Your task to perform on an android device: install app "Nova Launcher" Image 0: 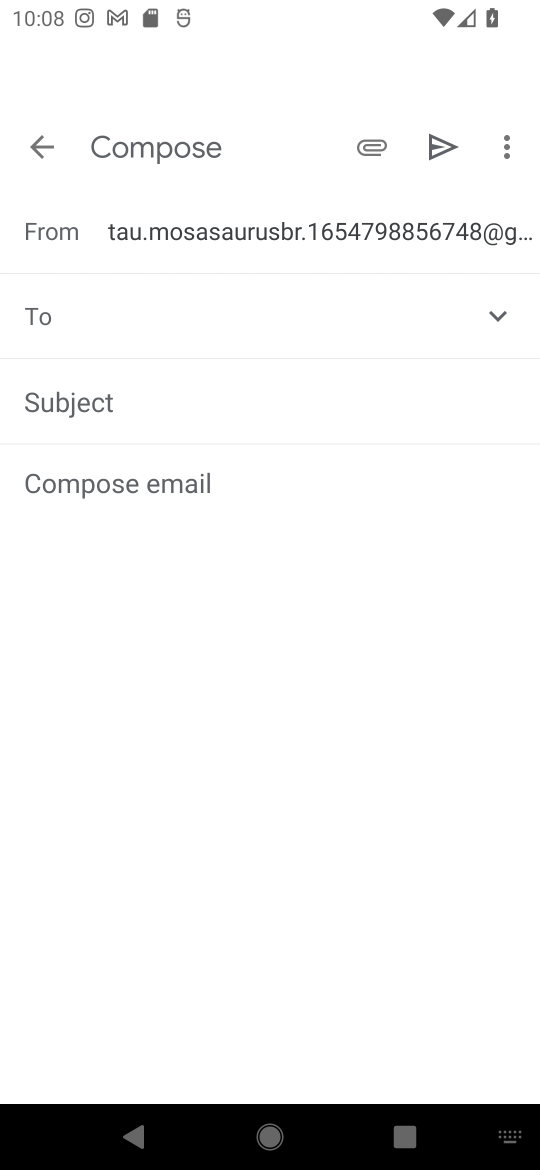
Step 0: press home button
Your task to perform on an android device: install app "Nova Launcher" Image 1: 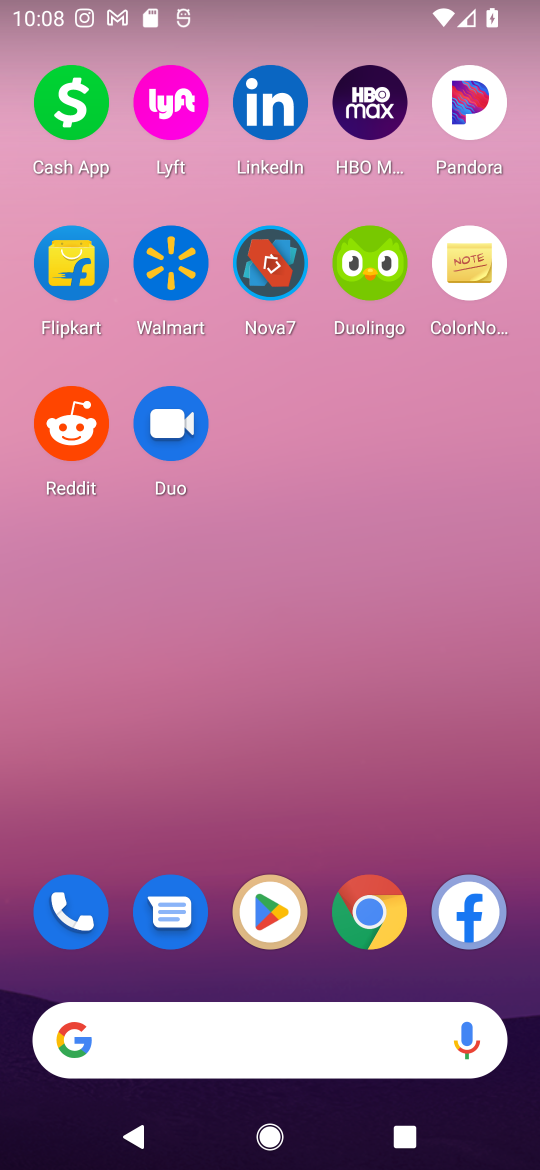
Step 1: click (270, 918)
Your task to perform on an android device: install app "Nova Launcher" Image 2: 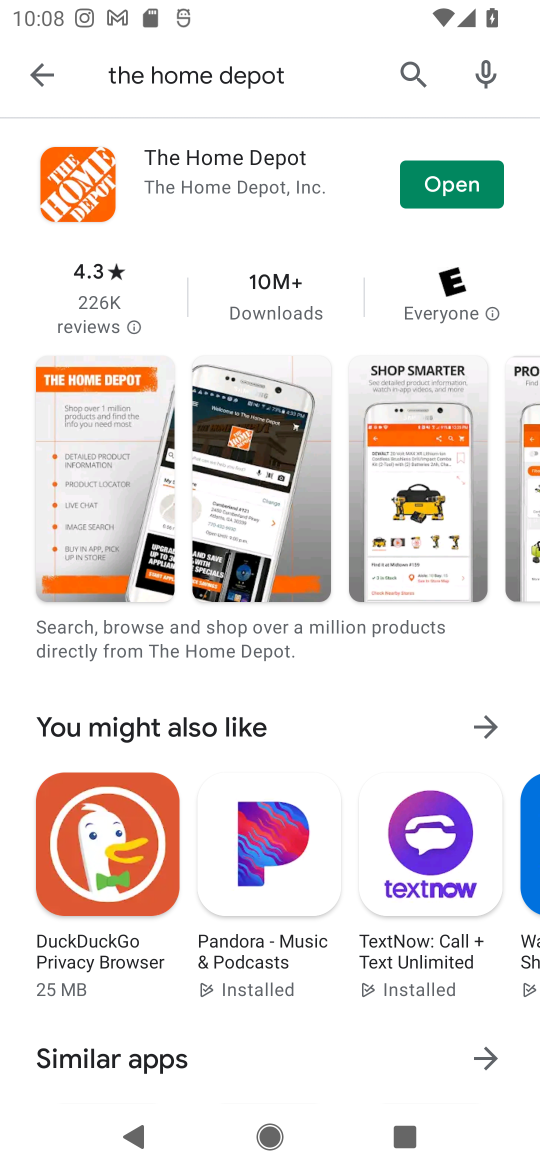
Step 2: click (411, 61)
Your task to perform on an android device: install app "Nova Launcher" Image 3: 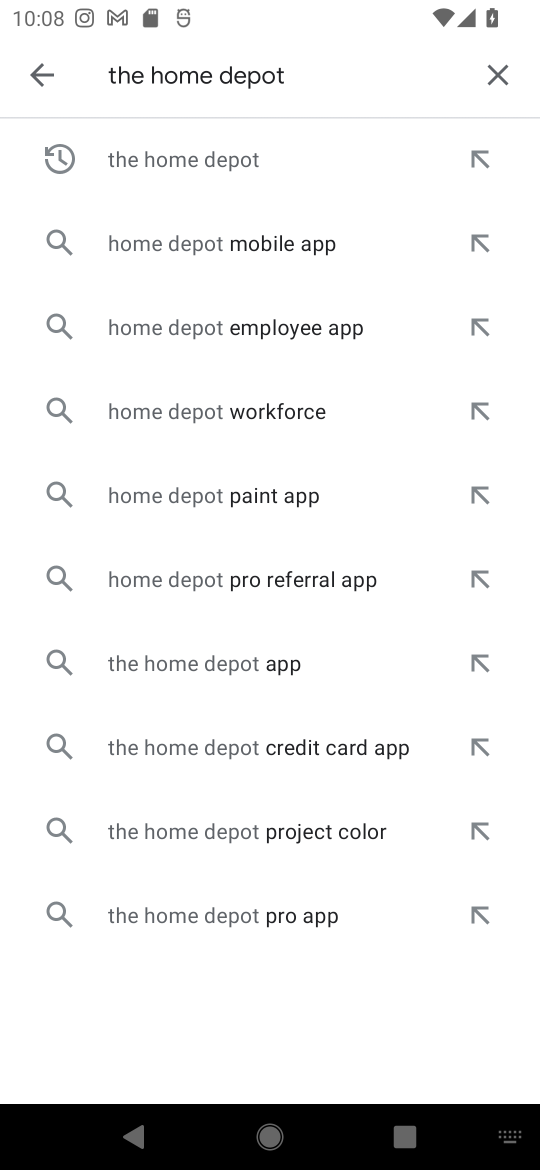
Step 3: click (489, 68)
Your task to perform on an android device: install app "Nova Launcher" Image 4: 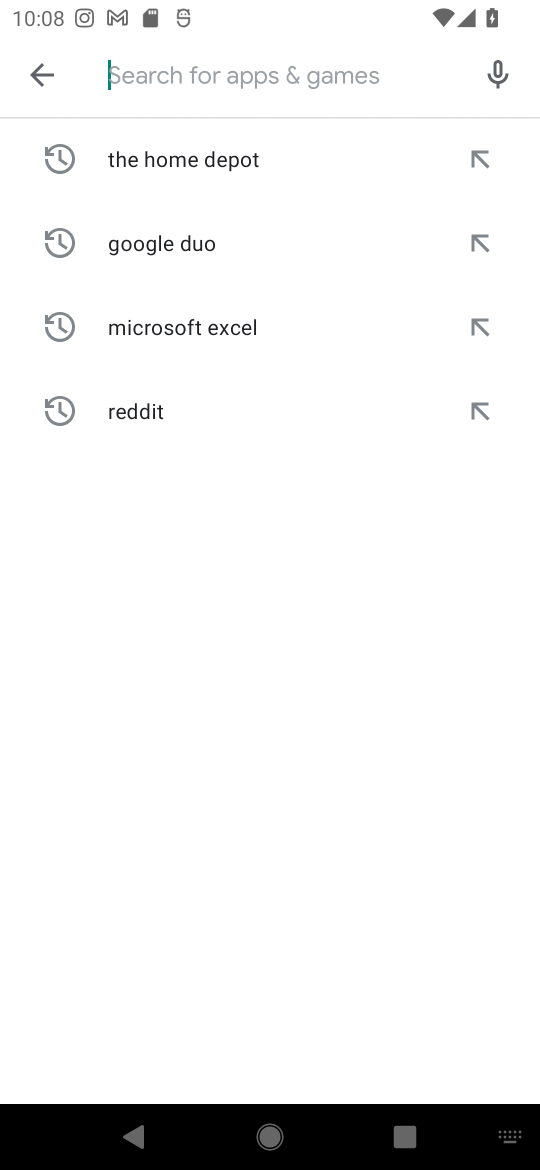
Step 4: type "Nova Launcher"
Your task to perform on an android device: install app "Nova Launcher" Image 5: 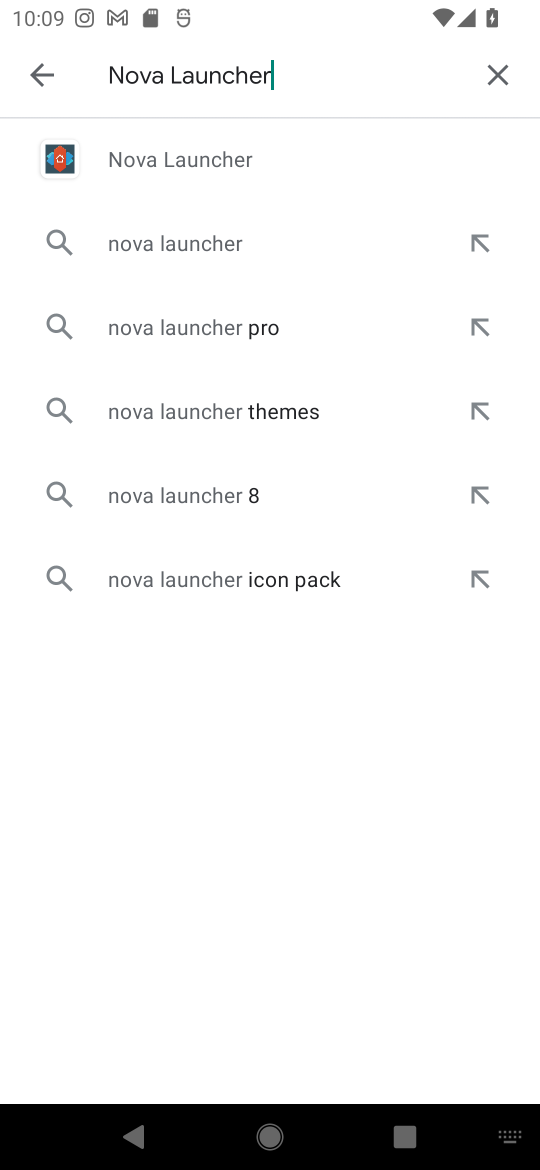
Step 5: click (160, 157)
Your task to perform on an android device: install app "Nova Launcher" Image 6: 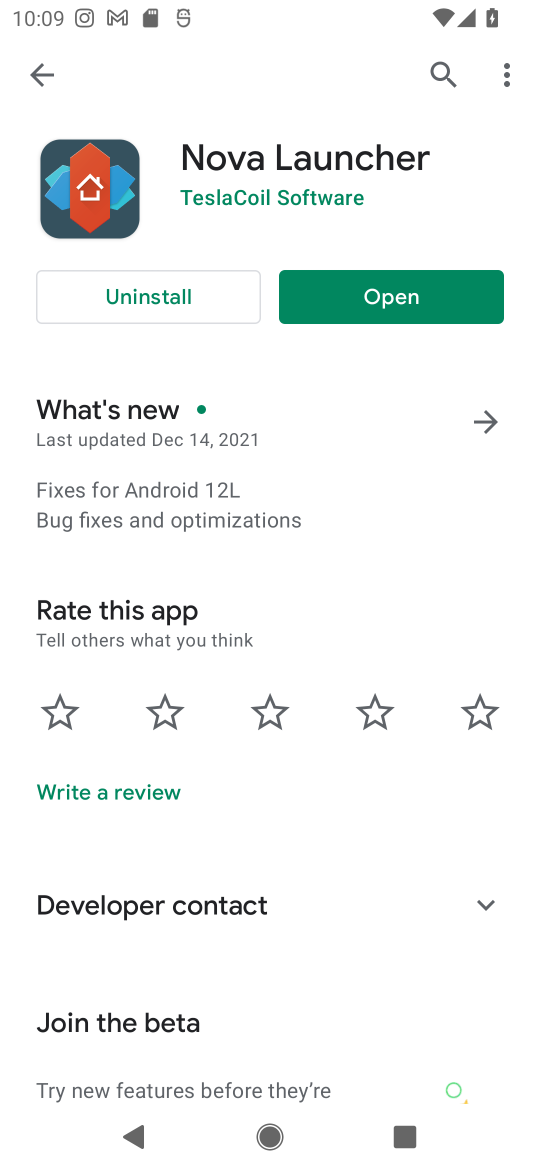
Step 6: task complete